Your task to perform on an android device: Open Chrome and go to the settings page Image 0: 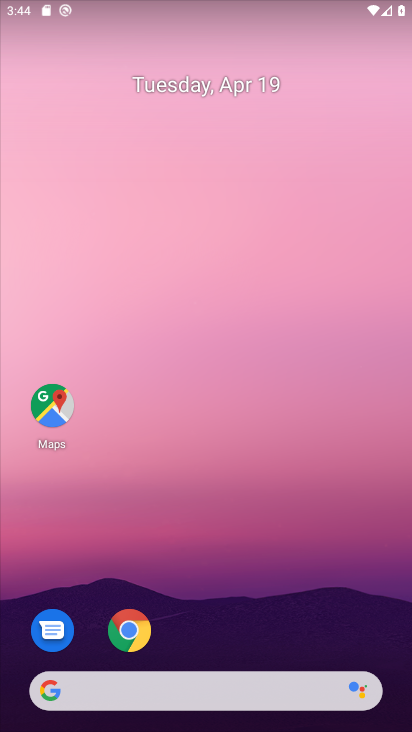
Step 0: click (136, 654)
Your task to perform on an android device: Open Chrome and go to the settings page Image 1: 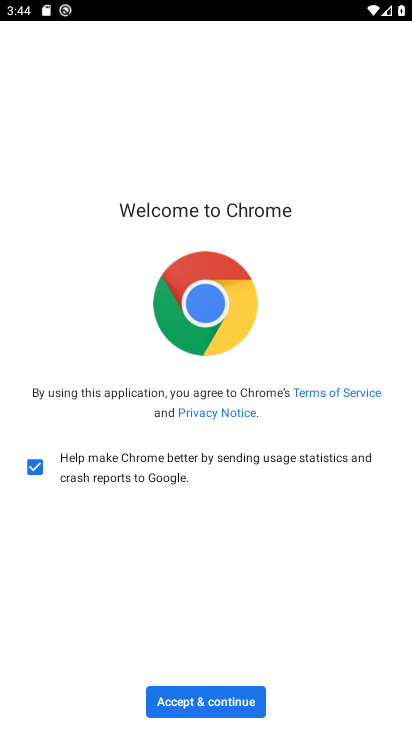
Step 1: click (229, 700)
Your task to perform on an android device: Open Chrome and go to the settings page Image 2: 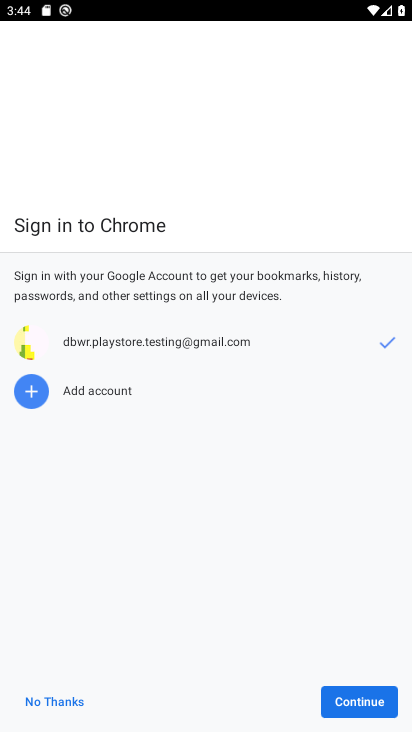
Step 2: click (359, 710)
Your task to perform on an android device: Open Chrome and go to the settings page Image 3: 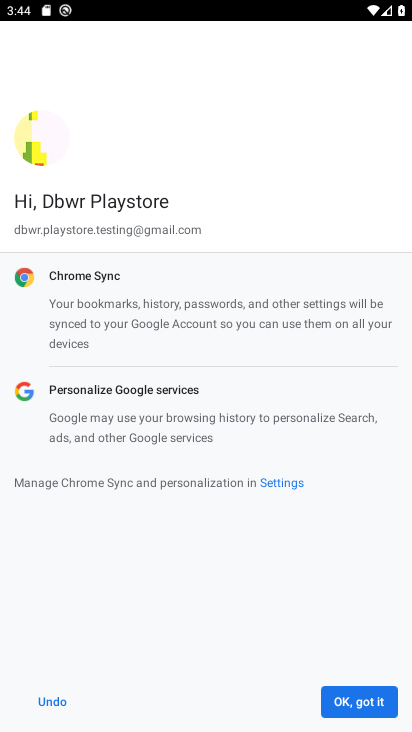
Step 3: click (359, 710)
Your task to perform on an android device: Open Chrome and go to the settings page Image 4: 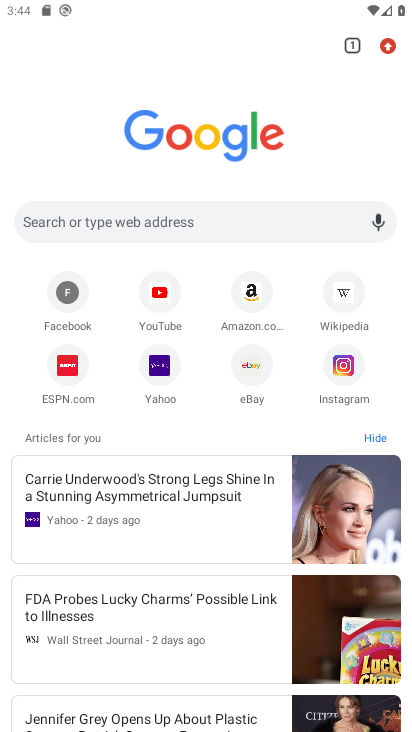
Step 4: click (391, 40)
Your task to perform on an android device: Open Chrome and go to the settings page Image 5: 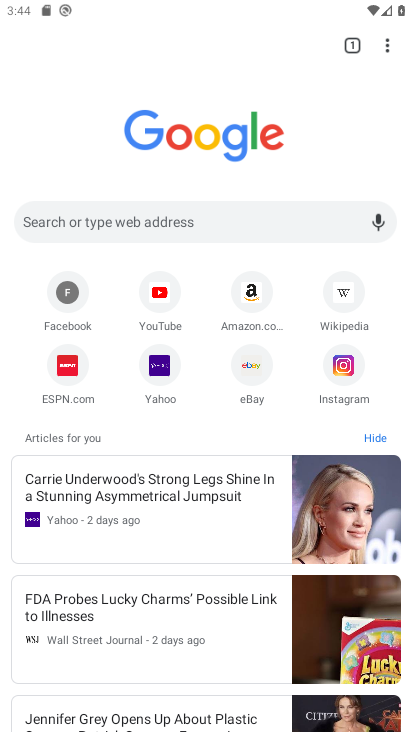
Step 5: click (387, 47)
Your task to perform on an android device: Open Chrome and go to the settings page Image 6: 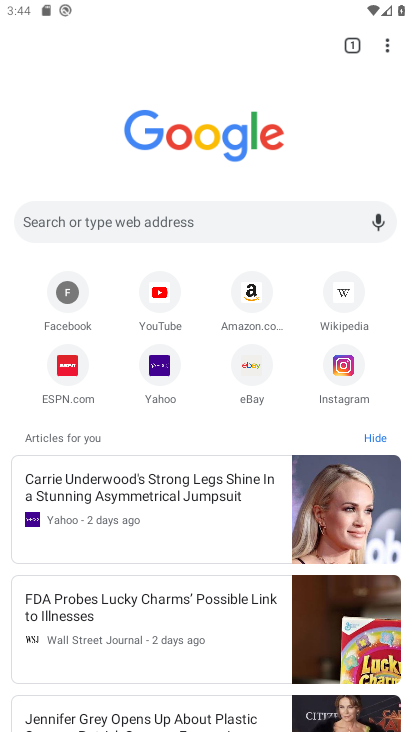
Step 6: task complete